Your task to perform on an android device: Open internet settings Image 0: 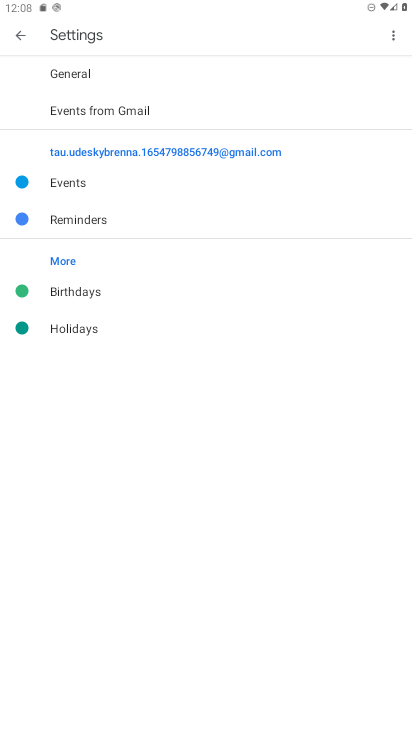
Step 0: press home button
Your task to perform on an android device: Open internet settings Image 1: 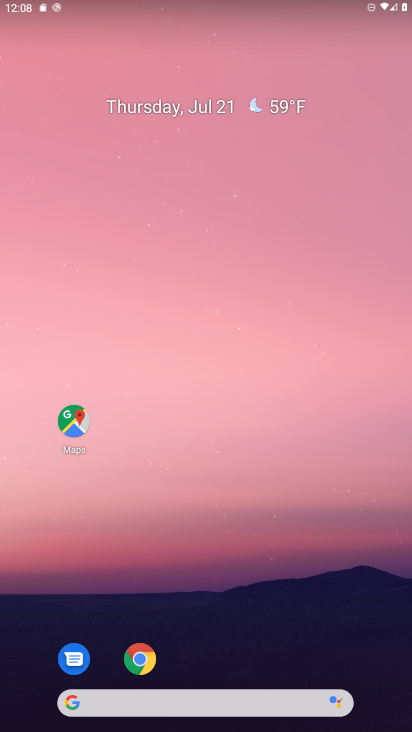
Step 1: drag from (60, 497) to (252, 52)
Your task to perform on an android device: Open internet settings Image 2: 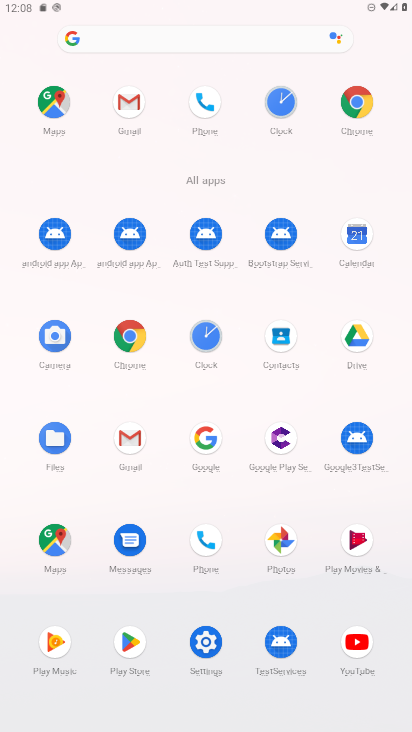
Step 2: click (198, 637)
Your task to perform on an android device: Open internet settings Image 3: 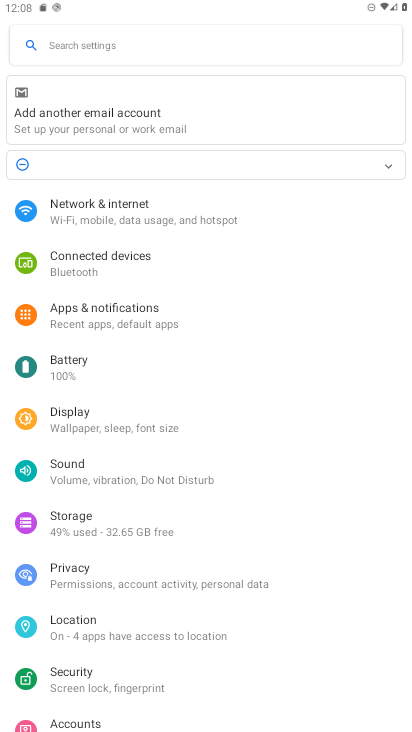
Step 3: click (166, 217)
Your task to perform on an android device: Open internet settings Image 4: 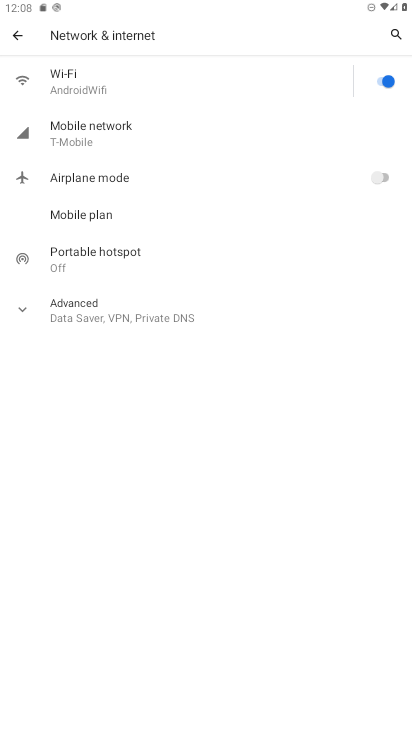
Step 4: click (118, 136)
Your task to perform on an android device: Open internet settings Image 5: 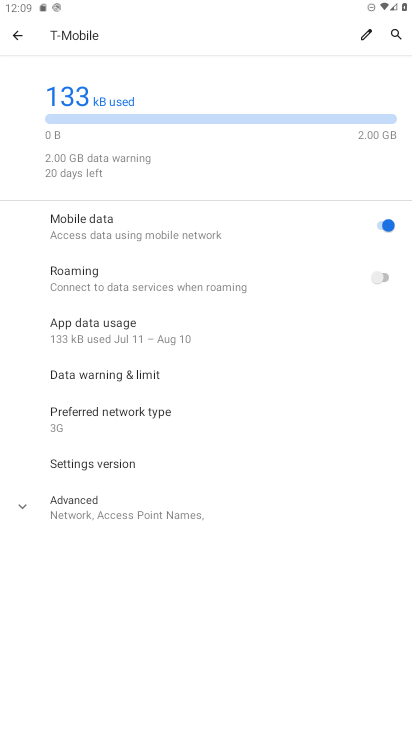
Step 5: task complete